Your task to perform on an android device: empty trash in google photos Image 0: 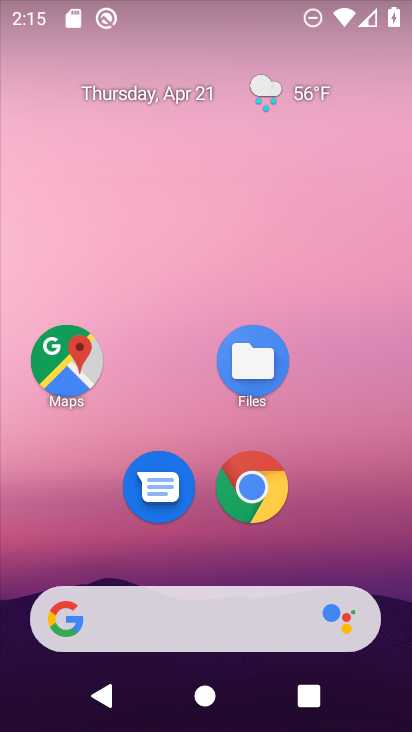
Step 0: drag from (362, 487) to (371, 188)
Your task to perform on an android device: empty trash in google photos Image 1: 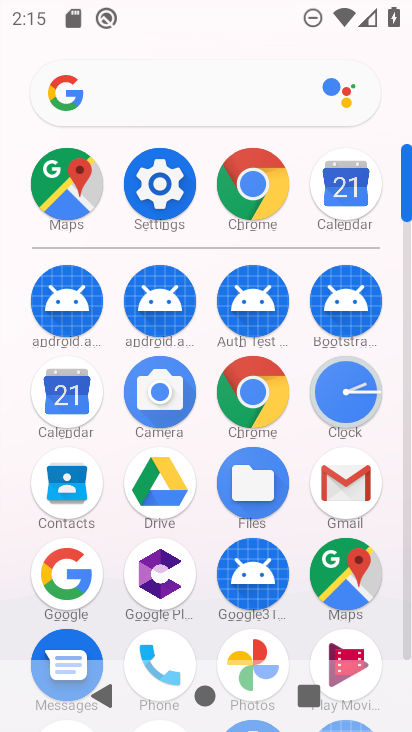
Step 1: drag from (298, 510) to (294, 209)
Your task to perform on an android device: empty trash in google photos Image 2: 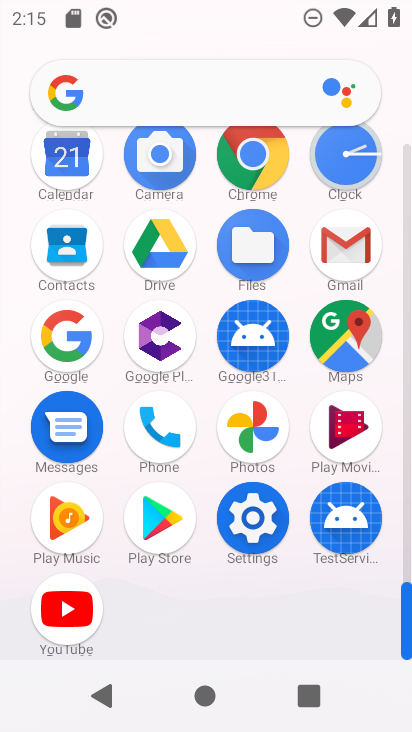
Step 2: click (262, 438)
Your task to perform on an android device: empty trash in google photos Image 3: 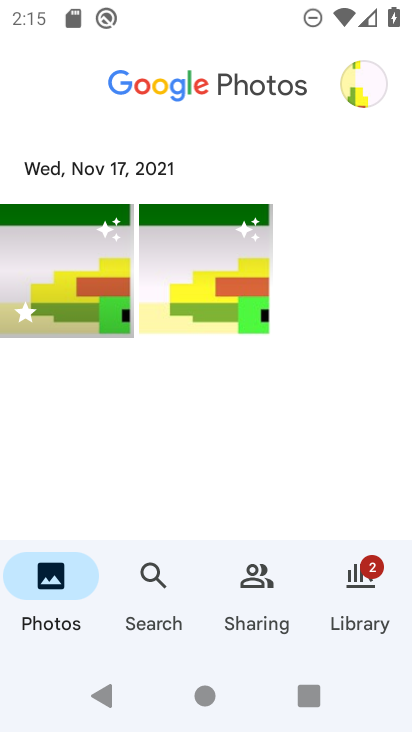
Step 3: click (364, 586)
Your task to perform on an android device: empty trash in google photos Image 4: 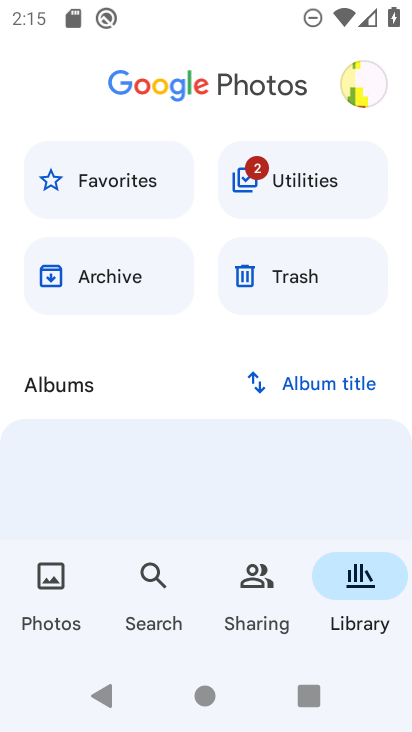
Step 4: click (267, 278)
Your task to perform on an android device: empty trash in google photos Image 5: 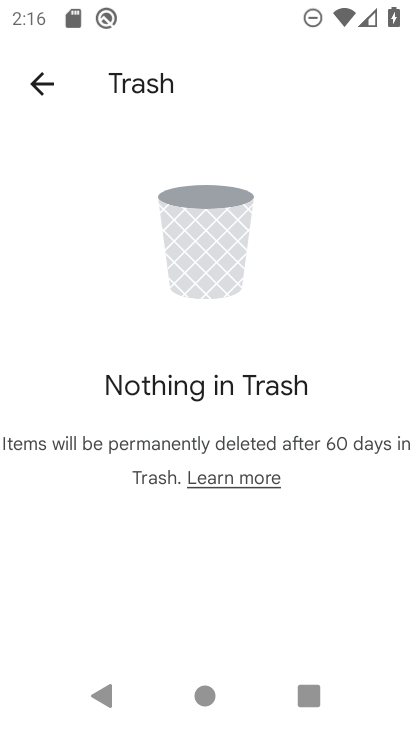
Step 5: task complete